Your task to perform on an android device: Go to accessibility settings Image 0: 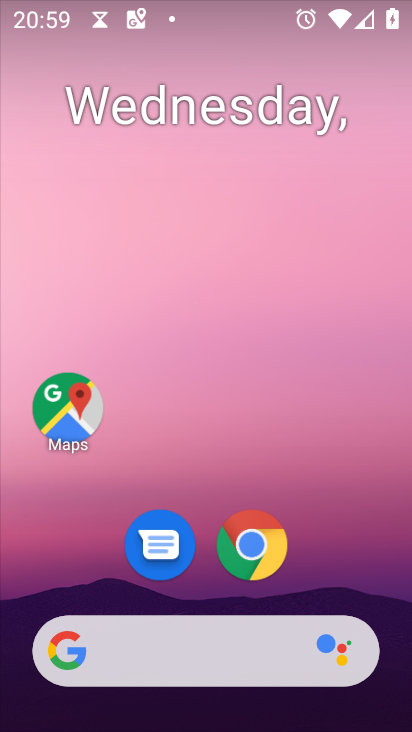
Step 0: press home button
Your task to perform on an android device: Go to accessibility settings Image 1: 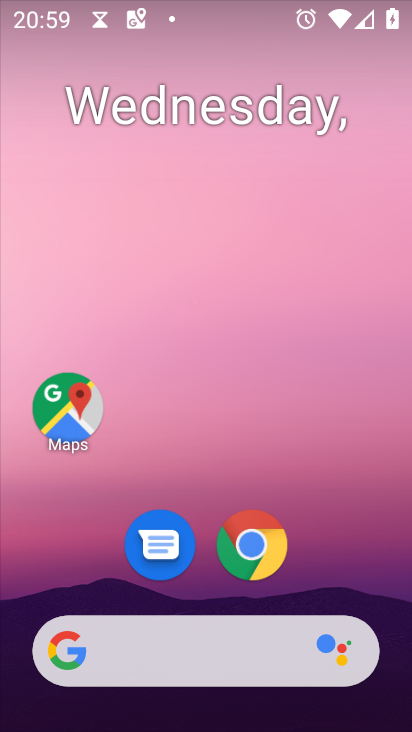
Step 1: drag from (166, 633) to (326, 128)
Your task to perform on an android device: Go to accessibility settings Image 2: 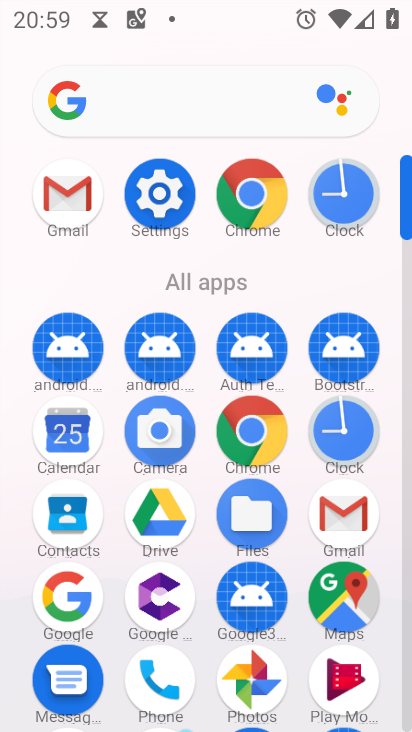
Step 2: click (166, 204)
Your task to perform on an android device: Go to accessibility settings Image 3: 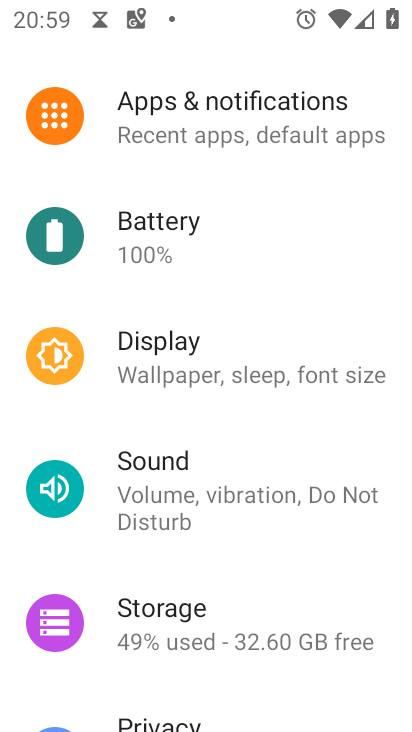
Step 3: drag from (234, 667) to (333, 213)
Your task to perform on an android device: Go to accessibility settings Image 4: 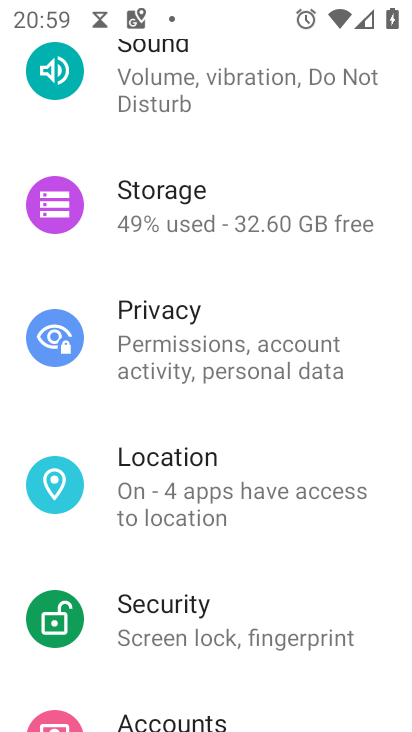
Step 4: drag from (252, 504) to (315, 185)
Your task to perform on an android device: Go to accessibility settings Image 5: 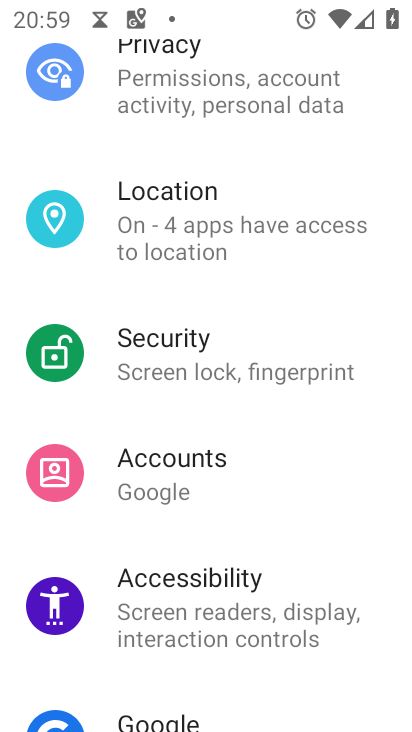
Step 5: click (174, 603)
Your task to perform on an android device: Go to accessibility settings Image 6: 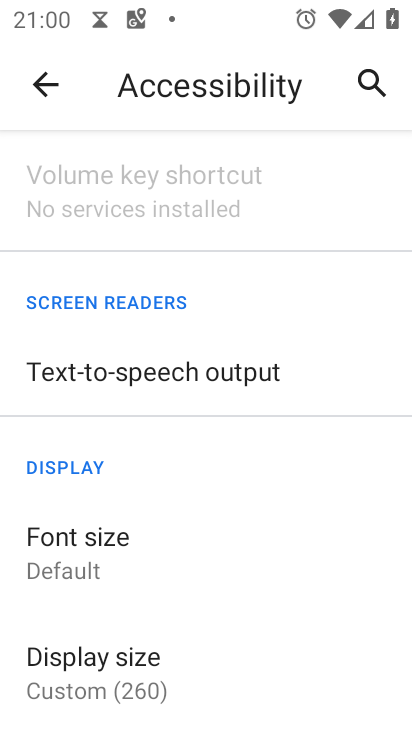
Step 6: task complete